Your task to perform on an android device: manage bookmarks in the chrome app Image 0: 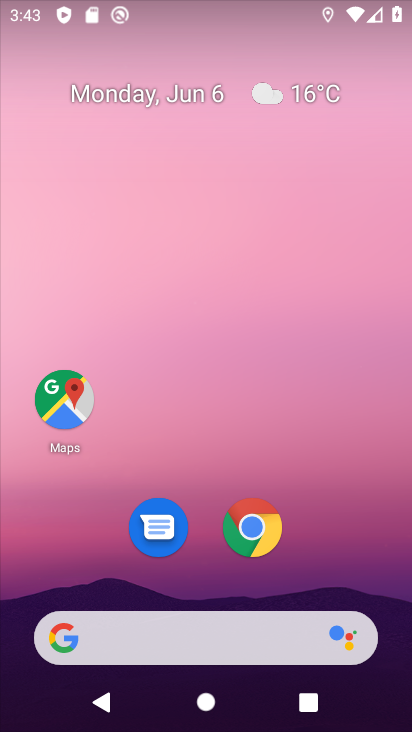
Step 0: click (244, 536)
Your task to perform on an android device: manage bookmarks in the chrome app Image 1: 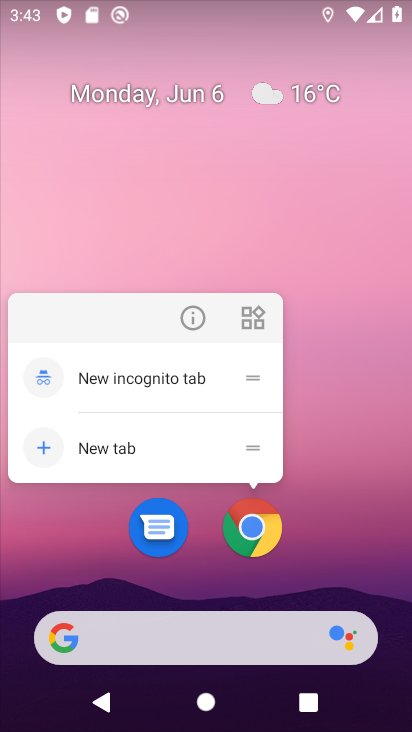
Step 1: click (244, 536)
Your task to perform on an android device: manage bookmarks in the chrome app Image 2: 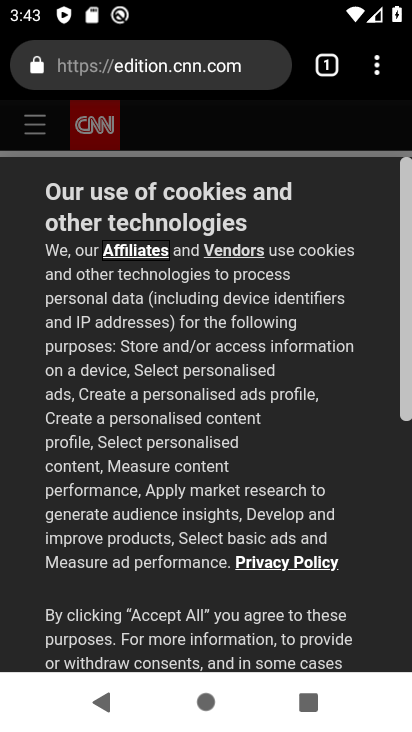
Step 2: click (382, 55)
Your task to perform on an android device: manage bookmarks in the chrome app Image 3: 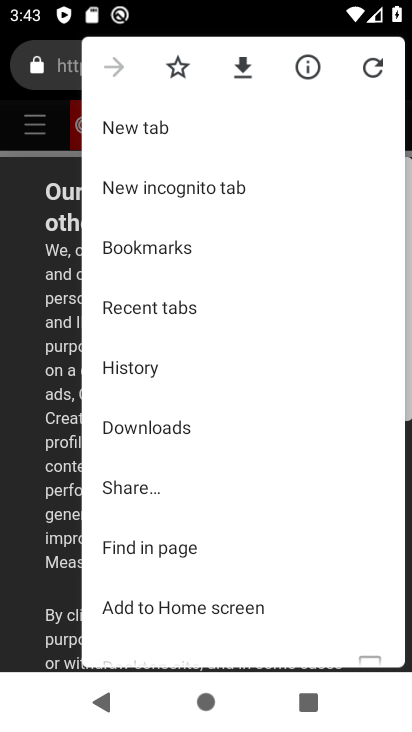
Step 3: click (187, 253)
Your task to perform on an android device: manage bookmarks in the chrome app Image 4: 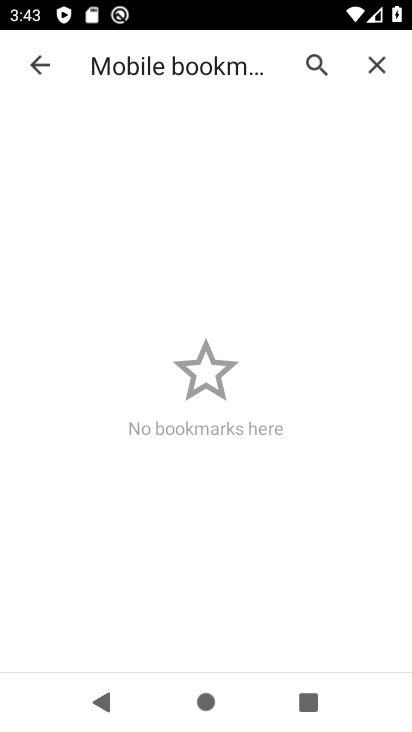
Step 4: task complete